Your task to perform on an android device: open app "NewsBreak: Local News & Alerts" (install if not already installed) and enter user name: "switch@outlook.com" and password: "fabrics" Image 0: 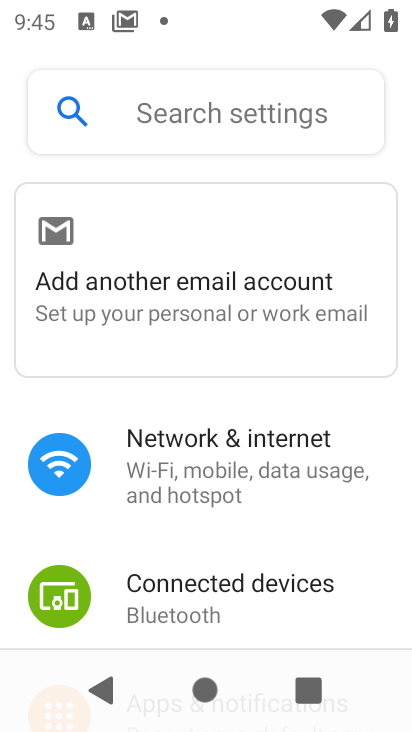
Step 0: press back button
Your task to perform on an android device: open app "NewsBreak: Local News & Alerts" (install if not already installed) and enter user name: "switch@outlook.com" and password: "fabrics" Image 1: 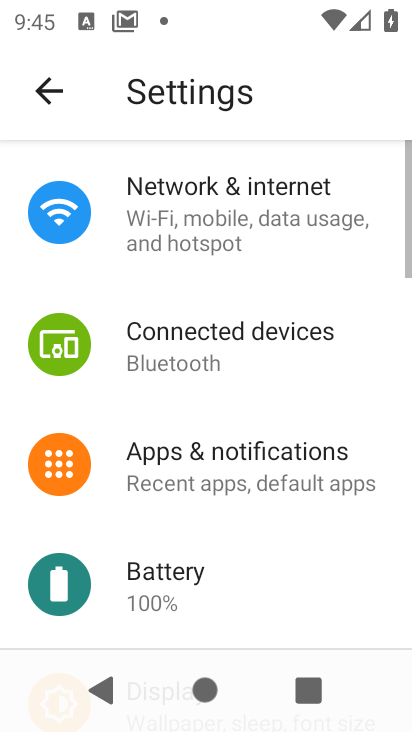
Step 1: press back button
Your task to perform on an android device: open app "NewsBreak: Local News & Alerts" (install if not already installed) and enter user name: "switch@outlook.com" and password: "fabrics" Image 2: 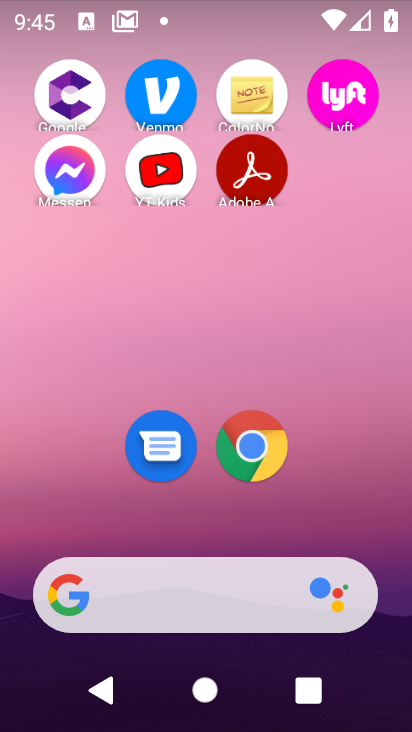
Step 2: drag from (243, 362) to (247, 101)
Your task to perform on an android device: open app "NewsBreak: Local News & Alerts" (install if not already installed) and enter user name: "switch@outlook.com" and password: "fabrics" Image 3: 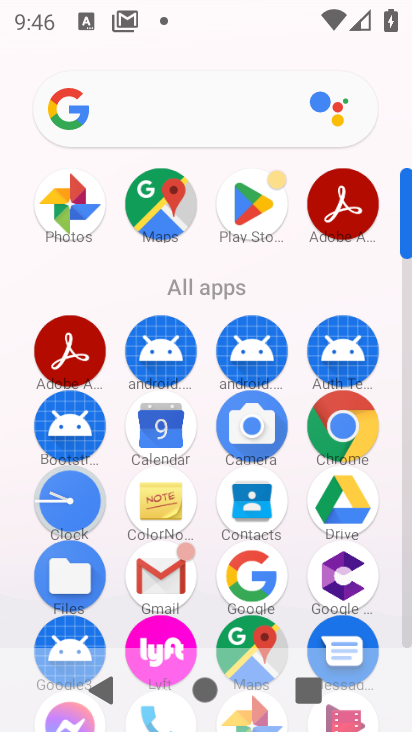
Step 3: click (242, 216)
Your task to perform on an android device: open app "NewsBreak: Local News & Alerts" (install if not already installed) and enter user name: "switch@outlook.com" and password: "fabrics" Image 4: 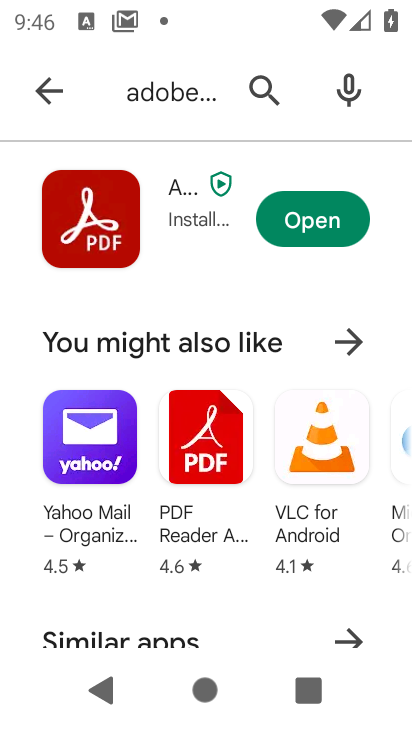
Step 4: click (271, 85)
Your task to perform on an android device: open app "NewsBreak: Local News & Alerts" (install if not already installed) and enter user name: "switch@outlook.com" and password: "fabrics" Image 5: 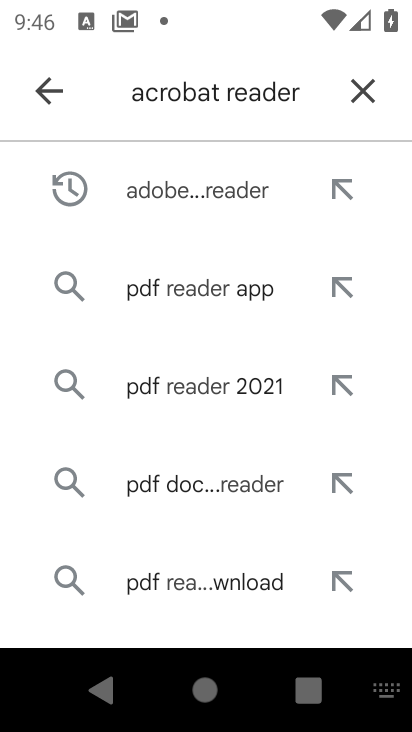
Step 5: click (364, 80)
Your task to perform on an android device: open app "NewsBreak: Local News & Alerts" (install if not already installed) and enter user name: "switch@outlook.com" and password: "fabrics" Image 6: 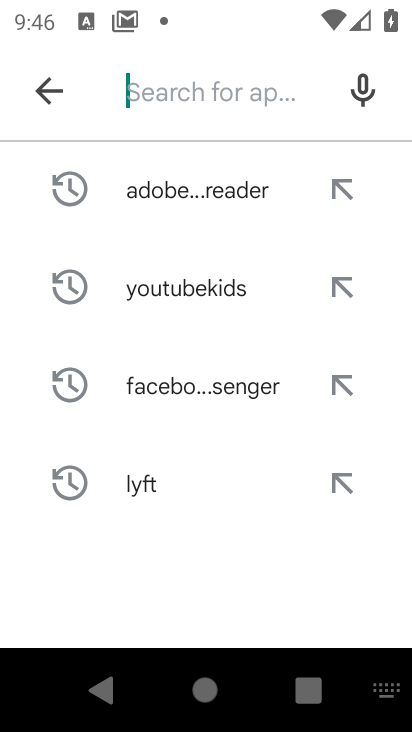
Step 6: click (178, 86)
Your task to perform on an android device: open app "NewsBreak: Local News & Alerts" (install if not already installed) and enter user name: "switch@outlook.com" and password: "fabrics" Image 7: 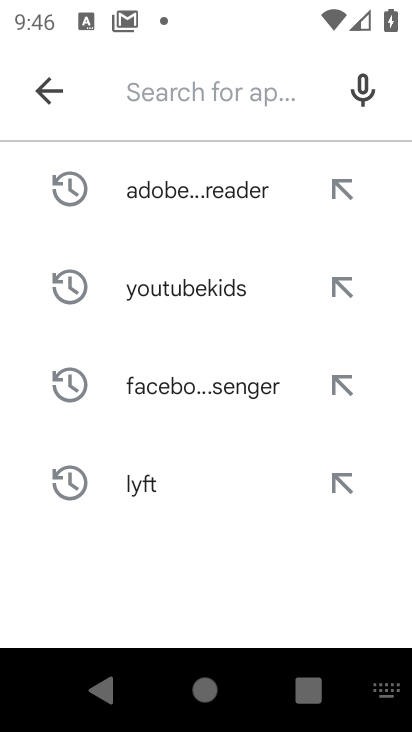
Step 7: click (152, 86)
Your task to perform on an android device: open app "NewsBreak: Local News & Alerts" (install if not already installed) and enter user name: "switch@outlook.com" and password: "fabrics" Image 8: 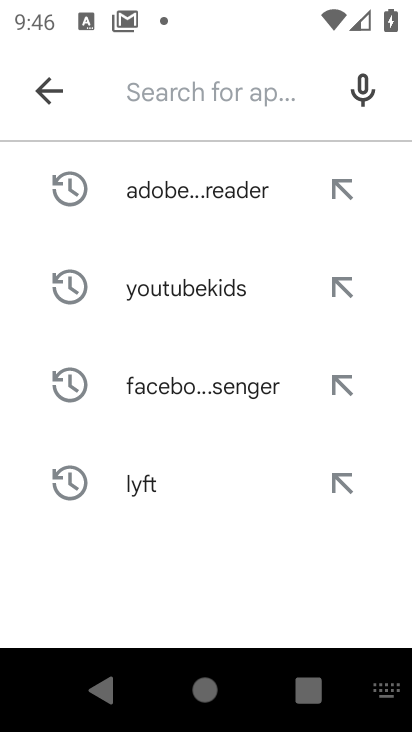
Step 8: type "NewsBreak: Local News & Alerts"
Your task to perform on an android device: open app "NewsBreak: Local News & Alerts" (install if not already installed) and enter user name: "switch@outlook.com" and password: "fabrics" Image 9: 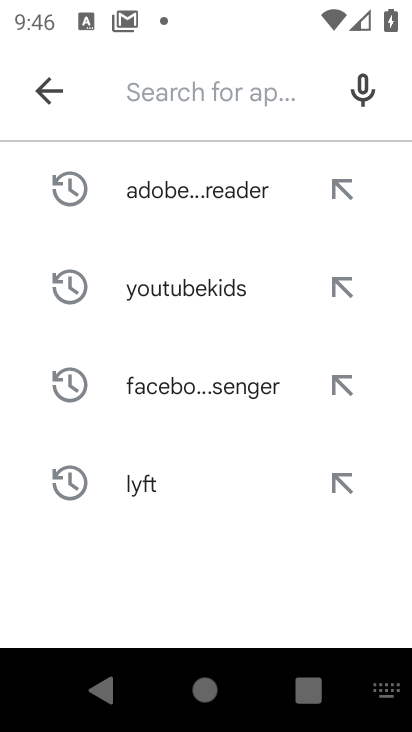
Step 9: click (175, 558)
Your task to perform on an android device: open app "NewsBreak: Local News & Alerts" (install if not already installed) and enter user name: "switch@outlook.com" and password: "fabrics" Image 10: 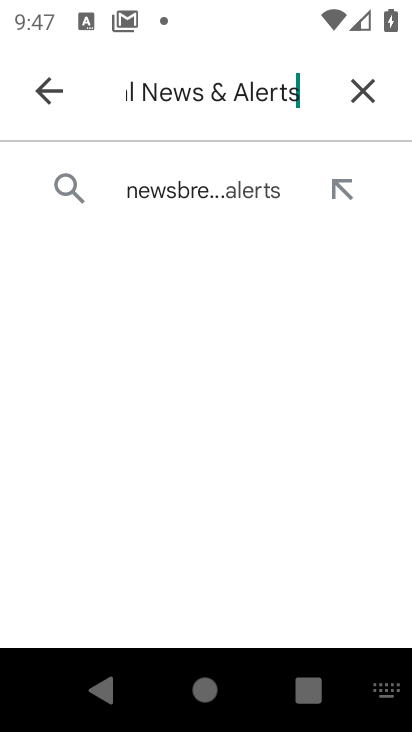
Step 10: click (176, 205)
Your task to perform on an android device: open app "NewsBreak: Local News & Alerts" (install if not already installed) and enter user name: "switch@outlook.com" and password: "fabrics" Image 11: 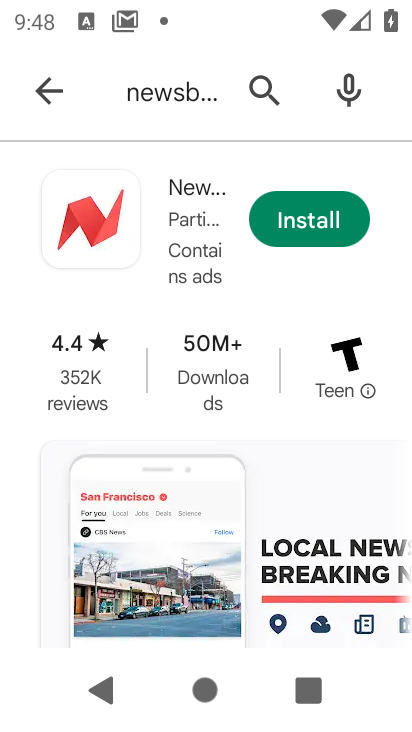
Step 11: click (305, 220)
Your task to perform on an android device: open app "NewsBreak: Local News & Alerts" (install if not already installed) and enter user name: "switch@outlook.com" and password: "fabrics" Image 12: 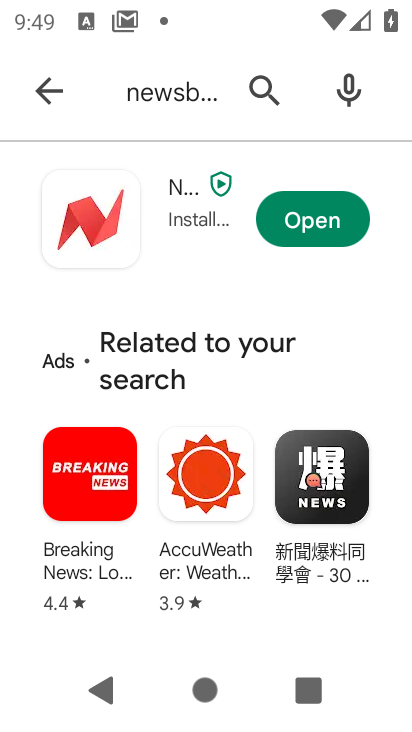
Step 12: click (289, 228)
Your task to perform on an android device: open app "NewsBreak: Local News & Alerts" (install if not already installed) and enter user name: "switch@outlook.com" and password: "fabrics" Image 13: 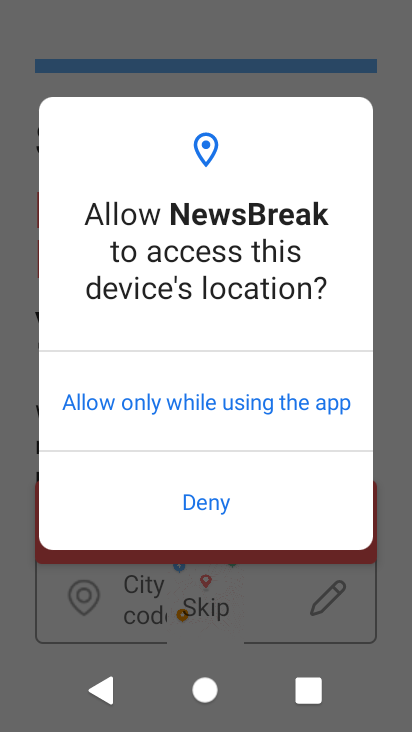
Step 13: click (200, 499)
Your task to perform on an android device: open app "NewsBreak: Local News & Alerts" (install if not already installed) and enter user name: "switch@outlook.com" and password: "fabrics" Image 14: 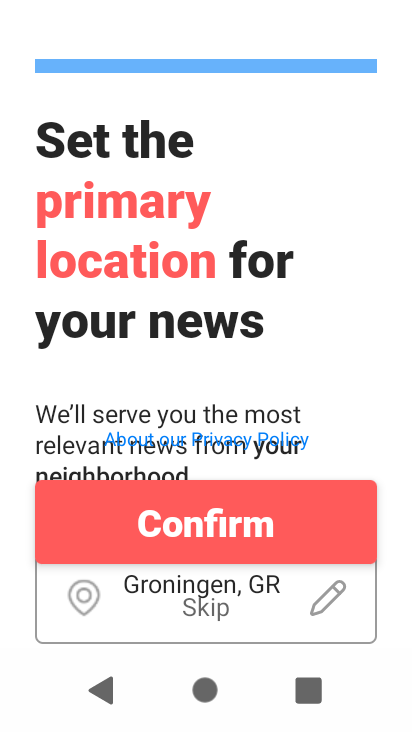
Step 14: drag from (191, 470) to (271, 102)
Your task to perform on an android device: open app "NewsBreak: Local News & Alerts" (install if not already installed) and enter user name: "switch@outlook.com" and password: "fabrics" Image 15: 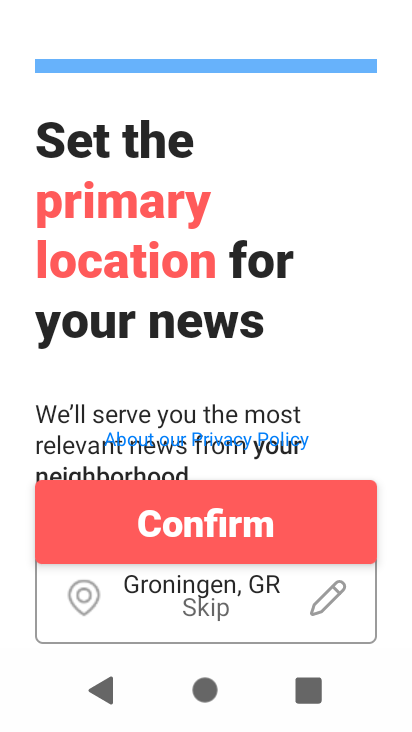
Step 15: click (206, 516)
Your task to perform on an android device: open app "NewsBreak: Local News & Alerts" (install if not already installed) and enter user name: "switch@outlook.com" and password: "fabrics" Image 16: 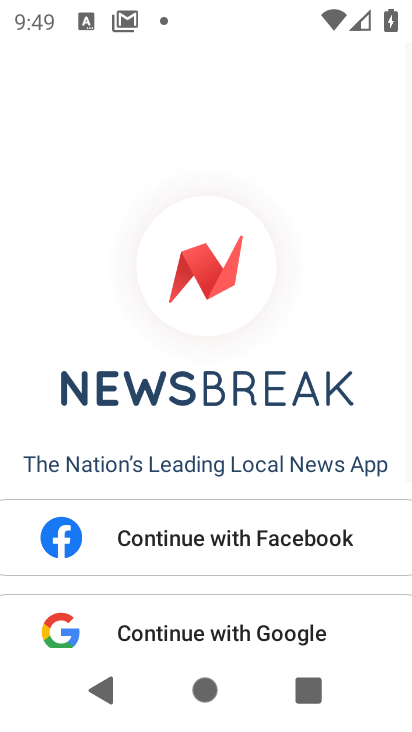
Step 16: drag from (189, 456) to (256, 113)
Your task to perform on an android device: open app "NewsBreak: Local News & Alerts" (install if not already installed) and enter user name: "switch@outlook.com" and password: "fabrics" Image 17: 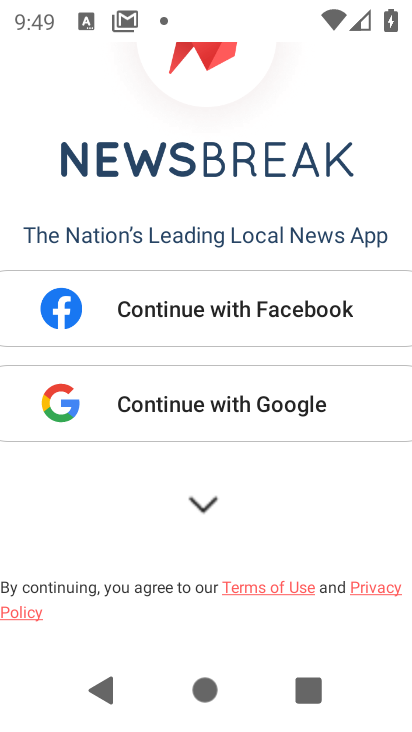
Step 17: drag from (194, 417) to (242, 50)
Your task to perform on an android device: open app "NewsBreak: Local News & Alerts" (install if not already installed) and enter user name: "switch@outlook.com" and password: "fabrics" Image 18: 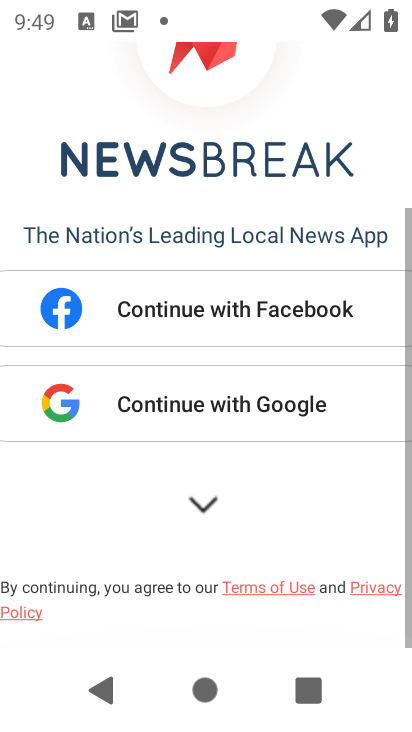
Step 18: click (206, 486)
Your task to perform on an android device: open app "NewsBreak: Local News & Alerts" (install if not already installed) and enter user name: "switch@outlook.com" and password: "fabrics" Image 19: 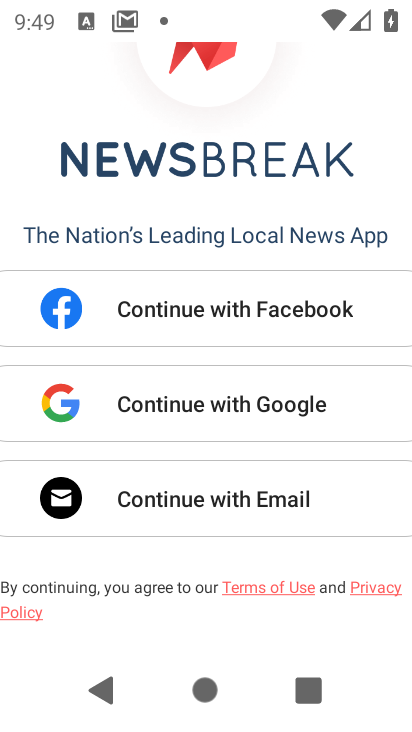
Step 19: drag from (207, 466) to (228, 91)
Your task to perform on an android device: open app "NewsBreak: Local News & Alerts" (install if not already installed) and enter user name: "switch@outlook.com" and password: "fabrics" Image 20: 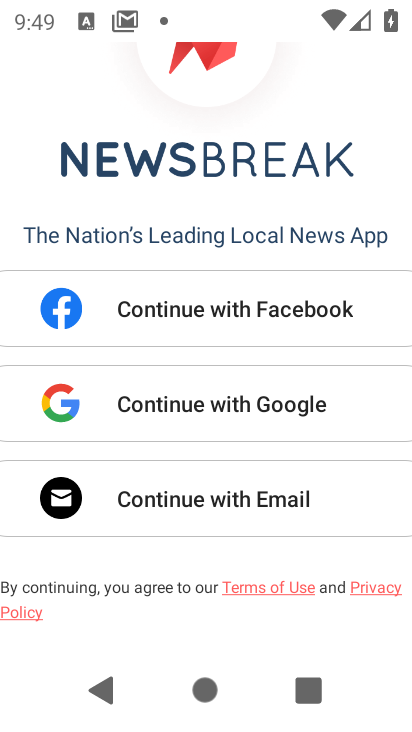
Step 20: click (194, 405)
Your task to perform on an android device: open app "NewsBreak: Local News & Alerts" (install if not already installed) and enter user name: "switch@outlook.com" and password: "fabrics" Image 21: 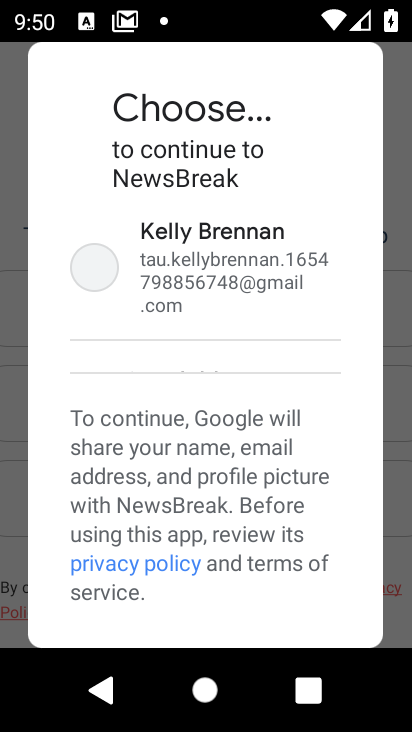
Step 21: click (16, 284)
Your task to perform on an android device: open app "NewsBreak: Local News & Alerts" (install if not already installed) and enter user name: "switch@outlook.com" and password: "fabrics" Image 22: 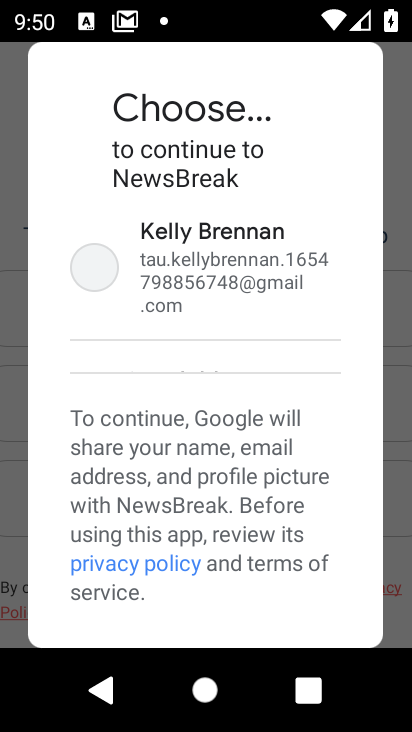
Step 22: click (9, 298)
Your task to perform on an android device: open app "NewsBreak: Local News & Alerts" (install if not already installed) and enter user name: "switch@outlook.com" and password: "fabrics" Image 23: 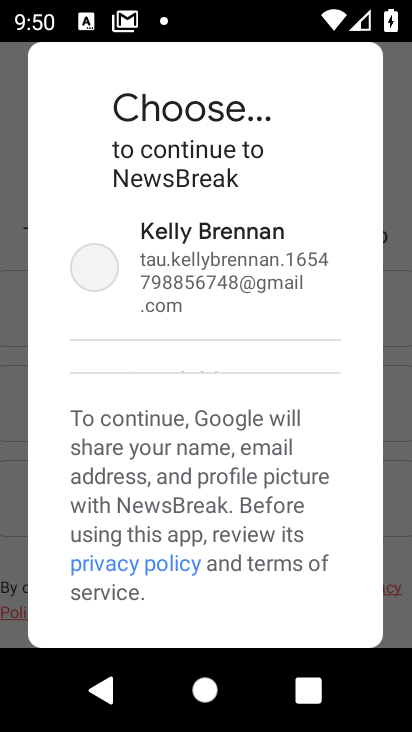
Step 23: drag from (233, 507) to (298, 102)
Your task to perform on an android device: open app "NewsBreak: Local News & Alerts" (install if not already installed) and enter user name: "switch@outlook.com" and password: "fabrics" Image 24: 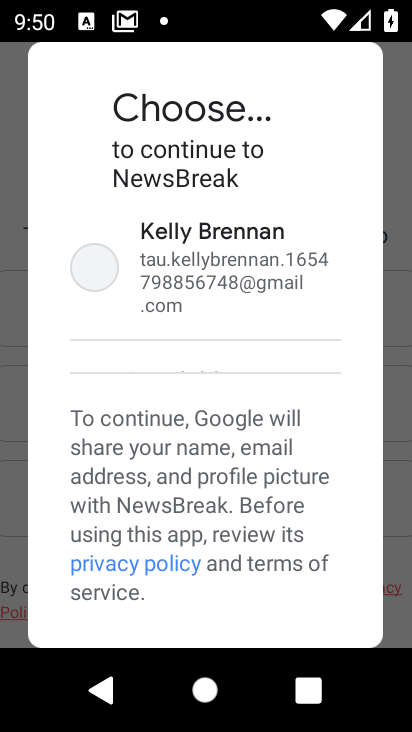
Step 24: click (81, 262)
Your task to perform on an android device: open app "NewsBreak: Local News & Alerts" (install if not already installed) and enter user name: "switch@outlook.com" and password: "fabrics" Image 25: 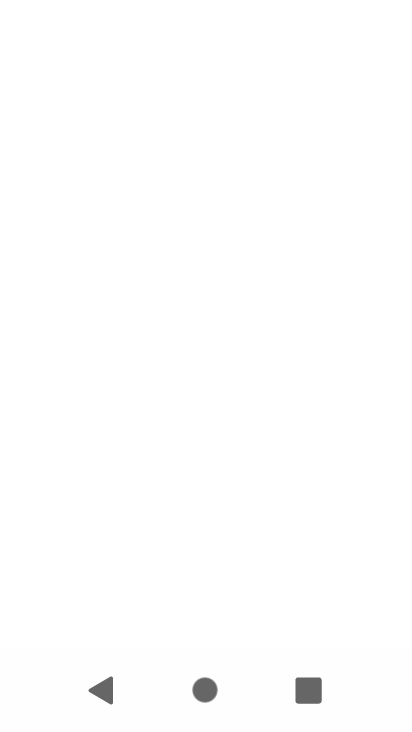
Step 25: click (158, 492)
Your task to perform on an android device: open app "NewsBreak: Local News & Alerts" (install if not already installed) and enter user name: "switch@outlook.com" and password: "fabrics" Image 26: 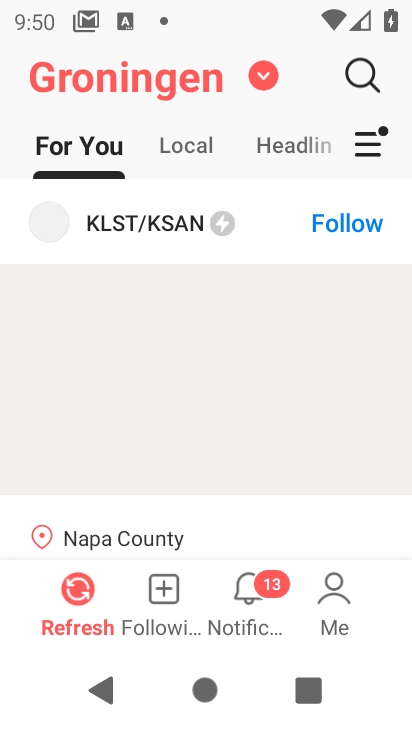
Step 26: click (310, 600)
Your task to perform on an android device: open app "NewsBreak: Local News & Alerts" (install if not already installed) and enter user name: "switch@outlook.com" and password: "fabrics" Image 27: 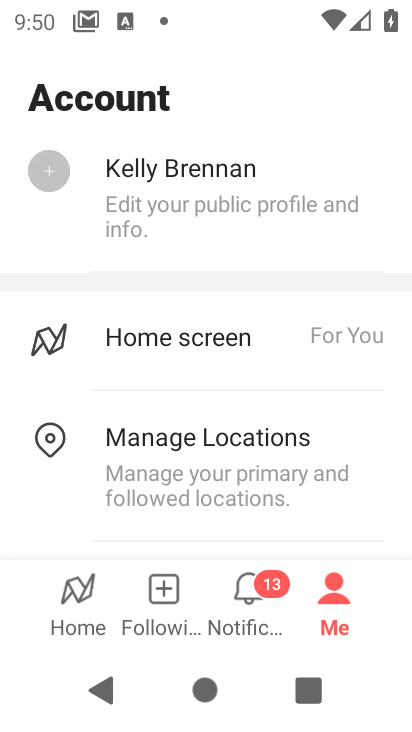
Step 27: task complete